Your task to perform on an android device: check data usage Image 0: 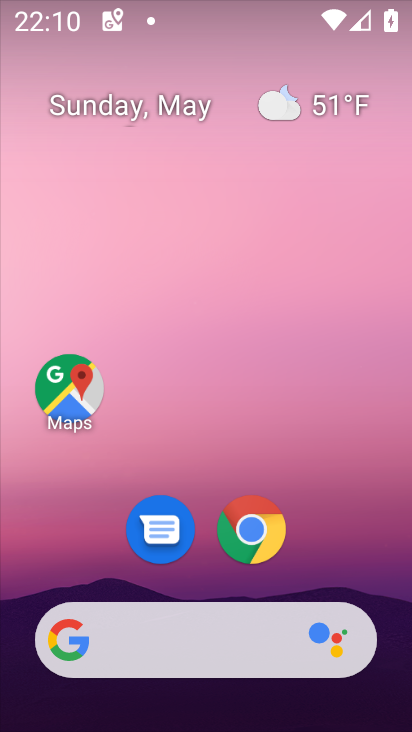
Step 0: drag from (290, 573) to (205, 30)
Your task to perform on an android device: check data usage Image 1: 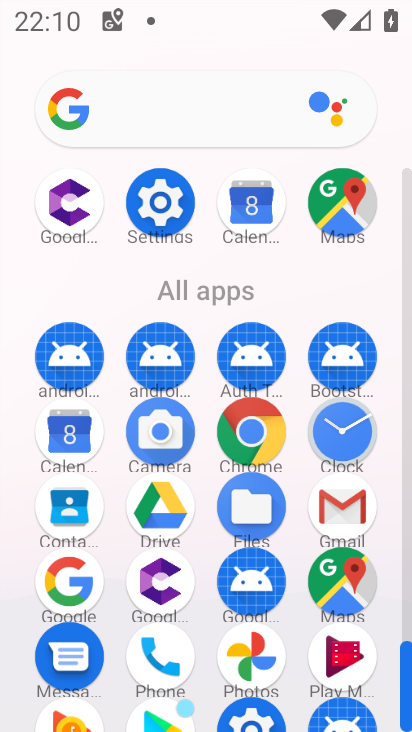
Step 1: drag from (309, 619) to (290, 360)
Your task to perform on an android device: check data usage Image 2: 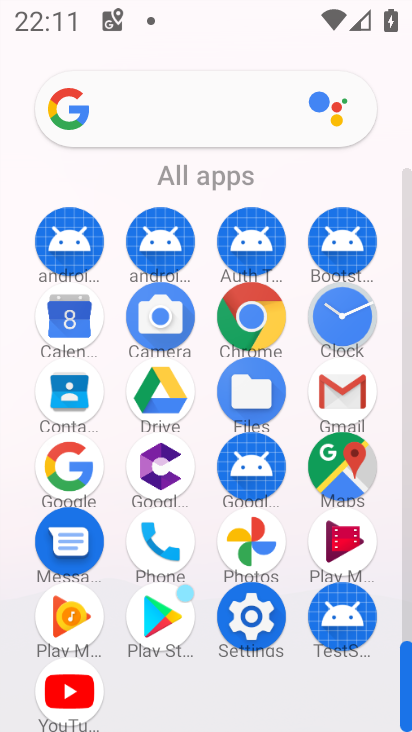
Step 2: click (245, 635)
Your task to perform on an android device: check data usage Image 3: 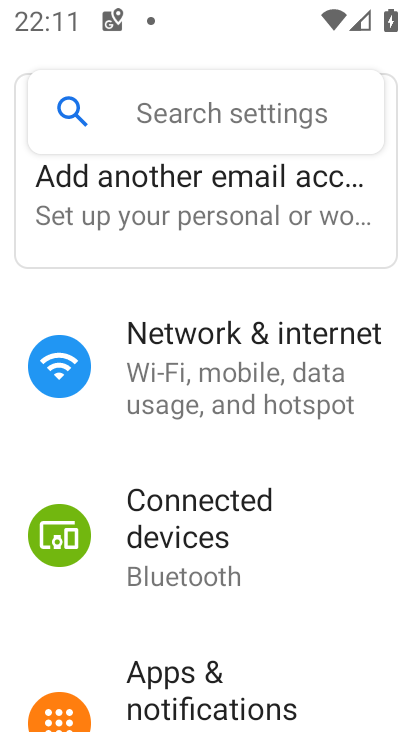
Step 3: drag from (265, 721) to (283, 248)
Your task to perform on an android device: check data usage Image 4: 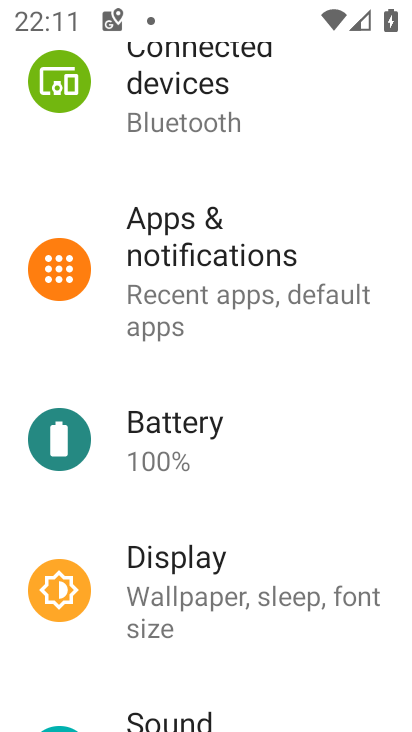
Step 4: drag from (265, 599) to (250, 402)
Your task to perform on an android device: check data usage Image 5: 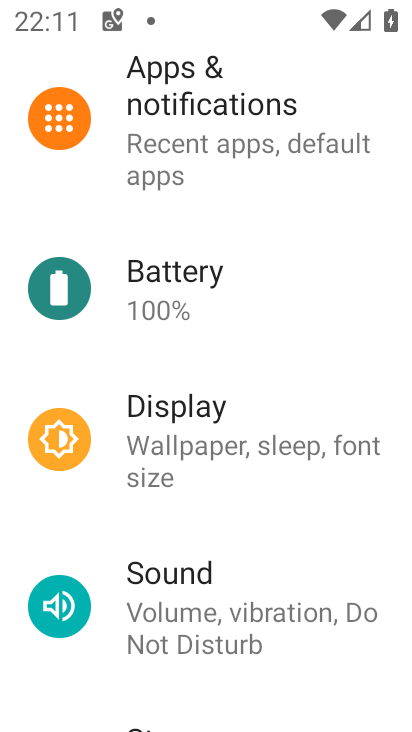
Step 5: drag from (265, 287) to (283, 713)
Your task to perform on an android device: check data usage Image 6: 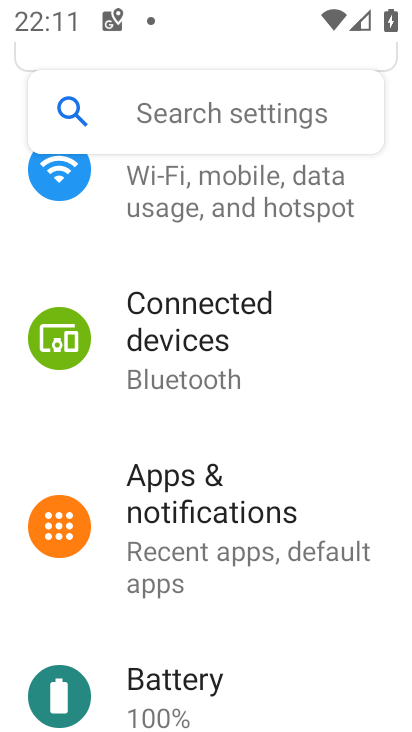
Step 6: click (219, 220)
Your task to perform on an android device: check data usage Image 7: 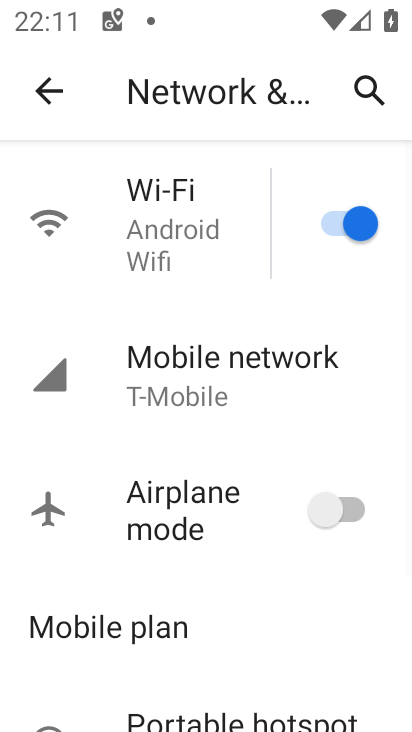
Step 7: drag from (256, 665) to (273, 366)
Your task to perform on an android device: check data usage Image 8: 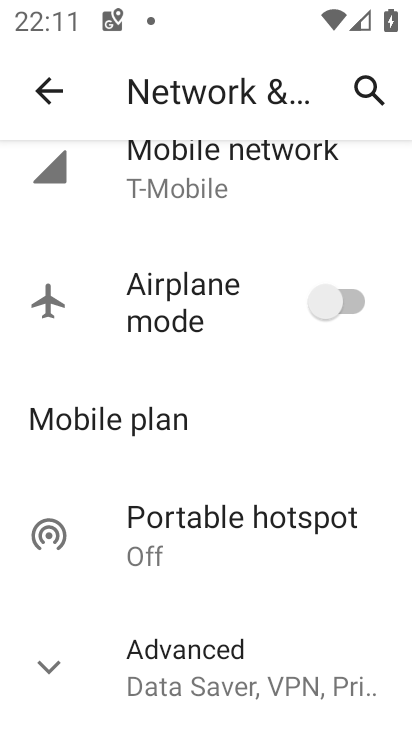
Step 8: drag from (257, 284) to (314, 633)
Your task to perform on an android device: check data usage Image 9: 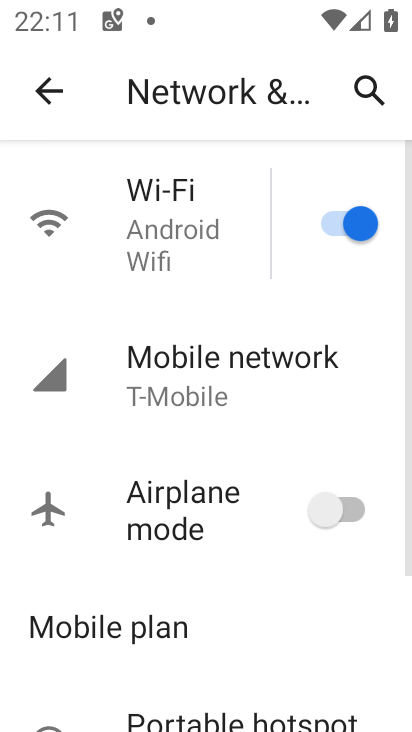
Step 9: click (264, 394)
Your task to perform on an android device: check data usage Image 10: 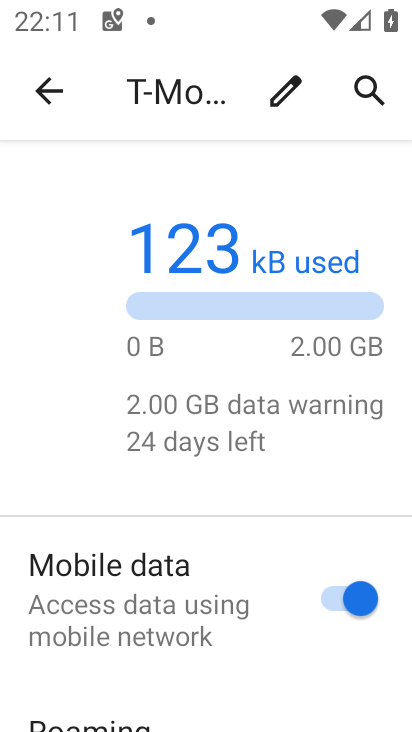
Step 10: task complete